Your task to perform on an android device: Open Amazon Image 0: 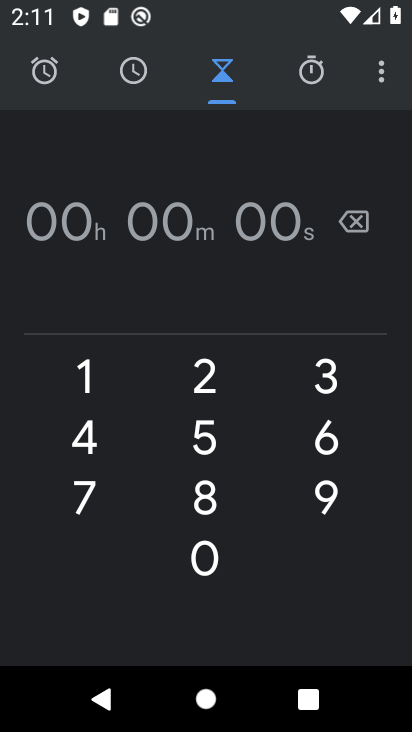
Step 0: press back button
Your task to perform on an android device: Open Amazon Image 1: 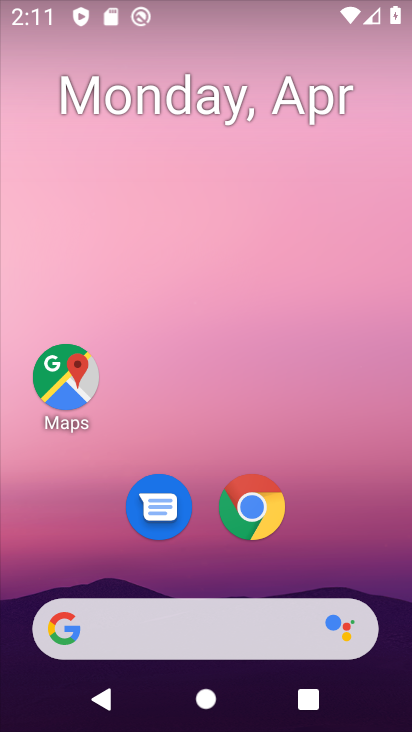
Step 1: click (259, 503)
Your task to perform on an android device: Open Amazon Image 2: 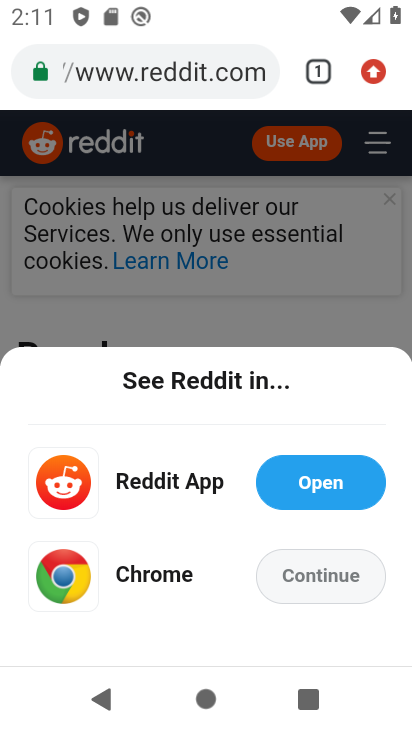
Step 2: click (144, 73)
Your task to perform on an android device: Open Amazon Image 3: 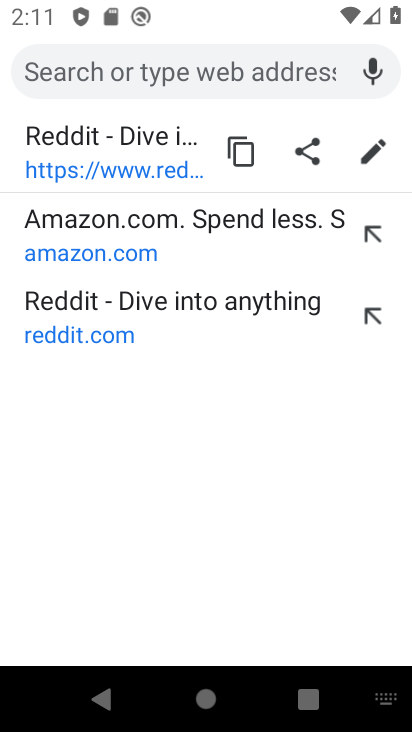
Step 3: type "amazon"
Your task to perform on an android device: Open Amazon Image 4: 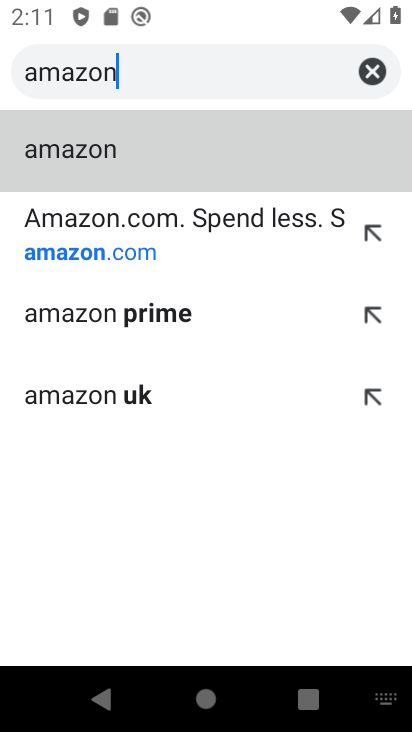
Step 4: click (67, 147)
Your task to perform on an android device: Open Amazon Image 5: 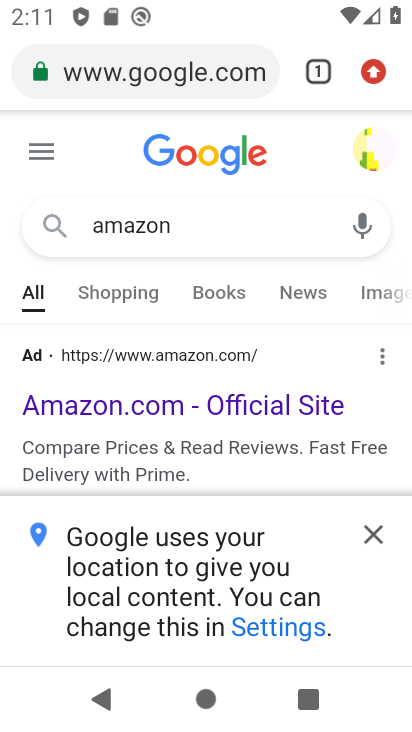
Step 5: click (98, 408)
Your task to perform on an android device: Open Amazon Image 6: 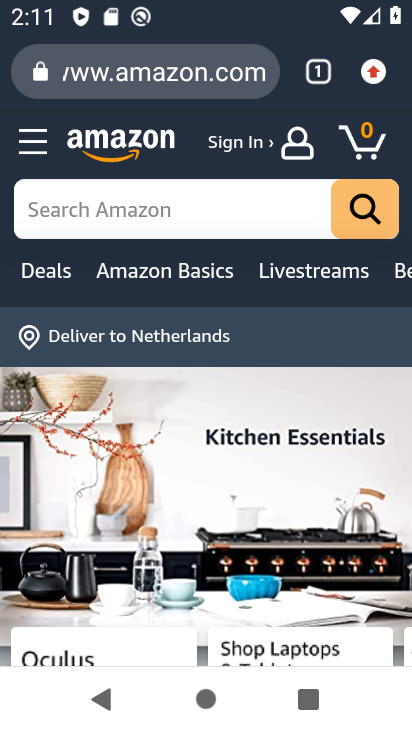
Step 6: task complete